Your task to perform on an android device: Go to sound settings Image 0: 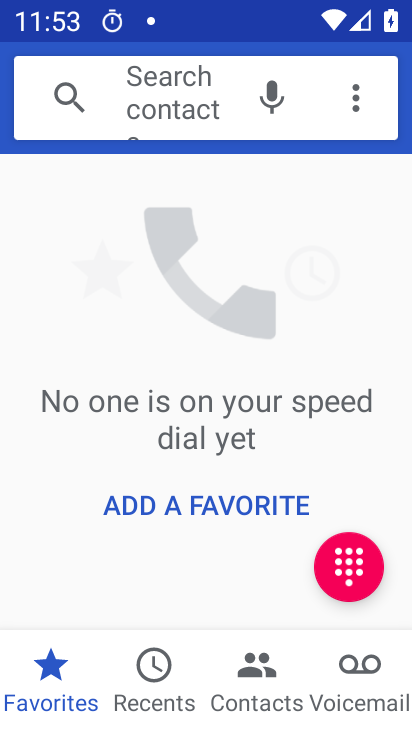
Step 0: press home button
Your task to perform on an android device: Go to sound settings Image 1: 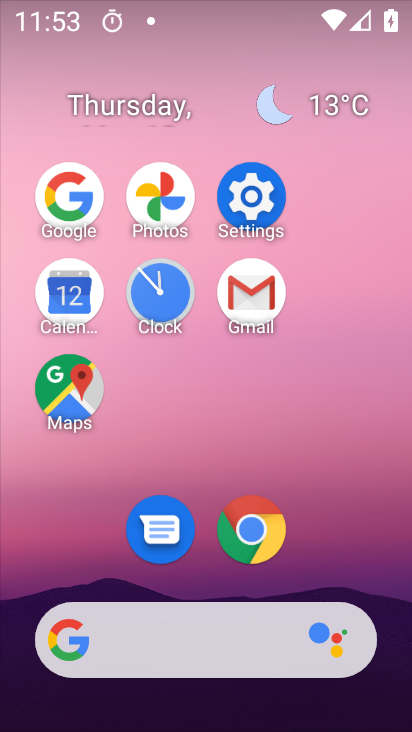
Step 1: click (274, 201)
Your task to perform on an android device: Go to sound settings Image 2: 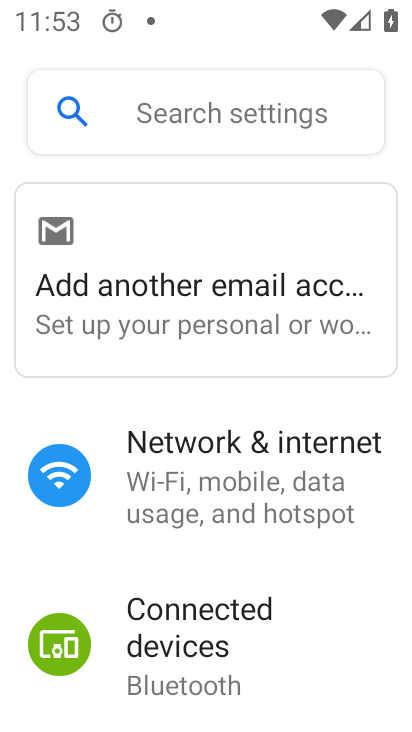
Step 2: drag from (277, 631) to (293, 149)
Your task to perform on an android device: Go to sound settings Image 3: 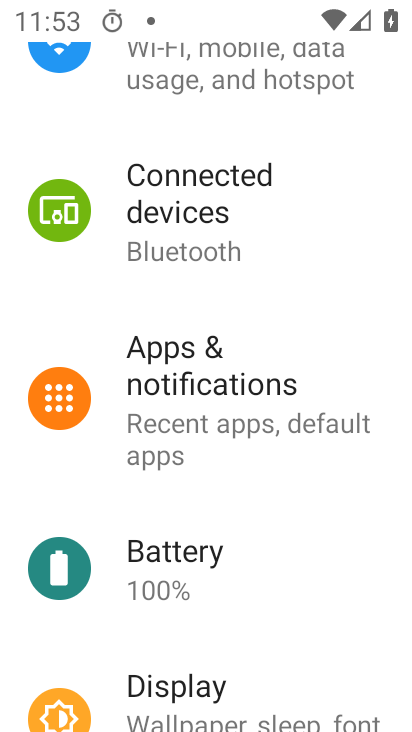
Step 3: drag from (259, 661) to (267, 219)
Your task to perform on an android device: Go to sound settings Image 4: 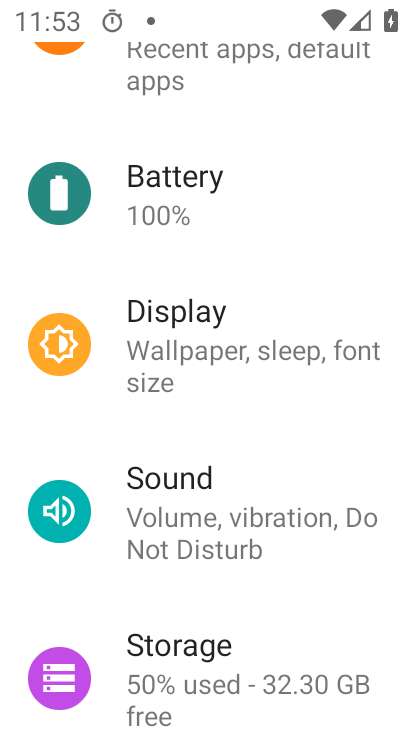
Step 4: click (251, 539)
Your task to perform on an android device: Go to sound settings Image 5: 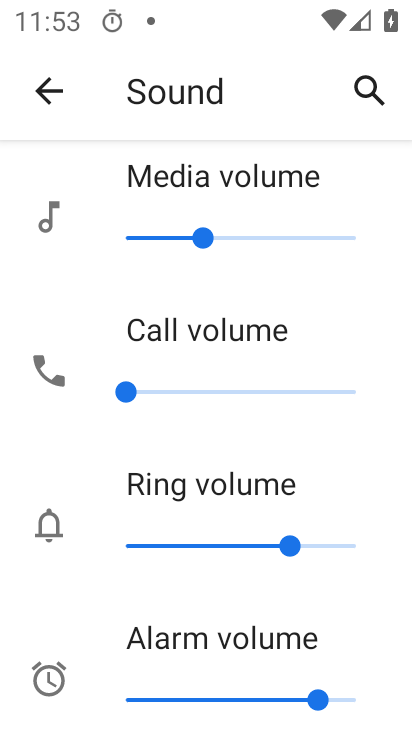
Step 5: task complete